Your task to perform on an android device: Open the Play Movies app and select the watchlist tab. Image 0: 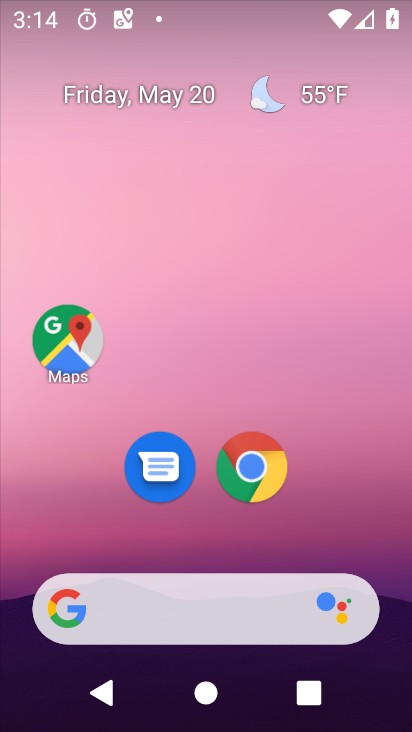
Step 0: drag from (223, 555) to (219, 56)
Your task to perform on an android device: Open the Play Movies app and select the watchlist tab. Image 1: 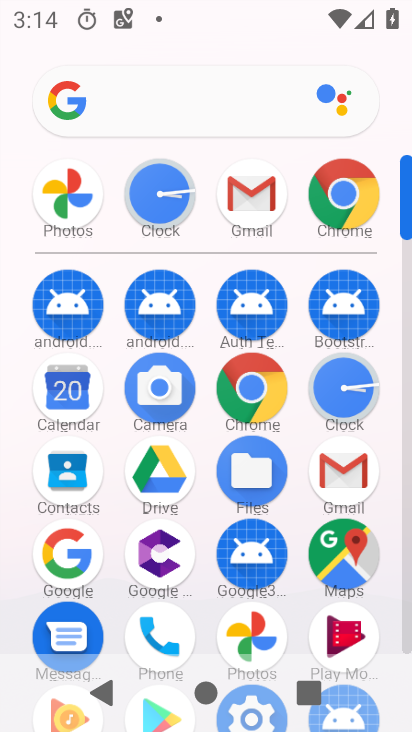
Step 1: click (340, 627)
Your task to perform on an android device: Open the Play Movies app and select the watchlist tab. Image 2: 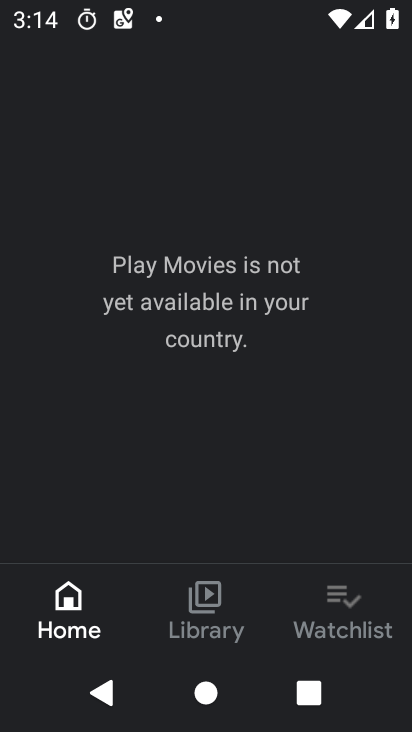
Step 2: click (360, 598)
Your task to perform on an android device: Open the Play Movies app and select the watchlist tab. Image 3: 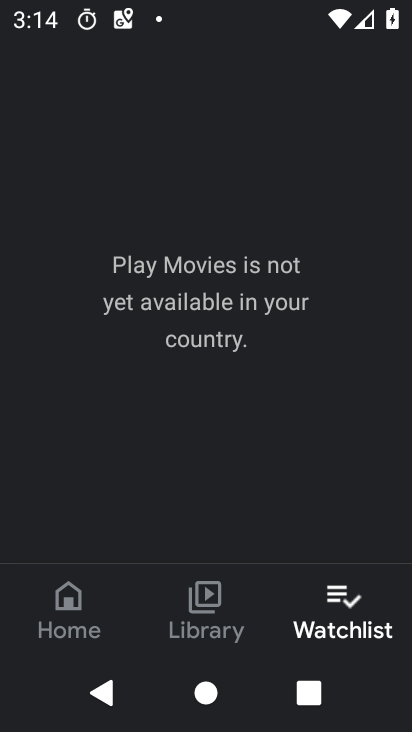
Step 3: task complete